Your task to perform on an android device: turn on priority inbox in the gmail app Image 0: 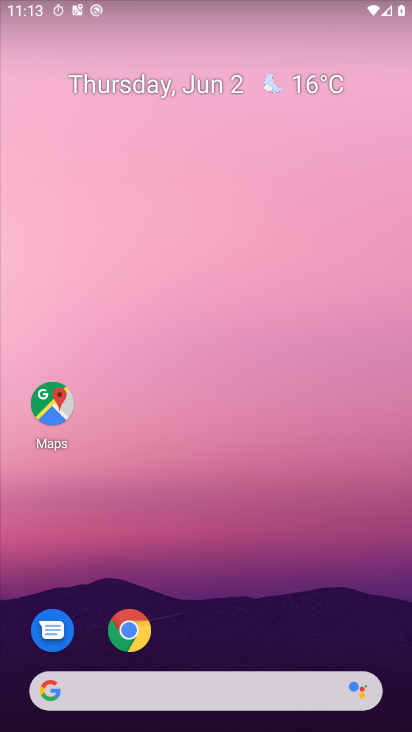
Step 0: drag from (209, 646) to (307, 131)
Your task to perform on an android device: turn on priority inbox in the gmail app Image 1: 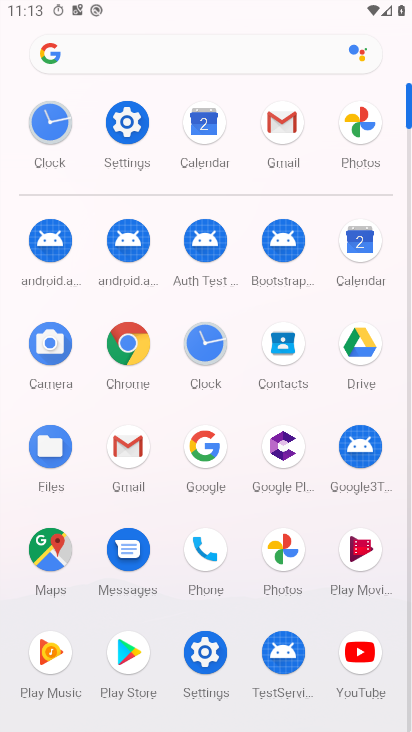
Step 1: click (132, 458)
Your task to perform on an android device: turn on priority inbox in the gmail app Image 2: 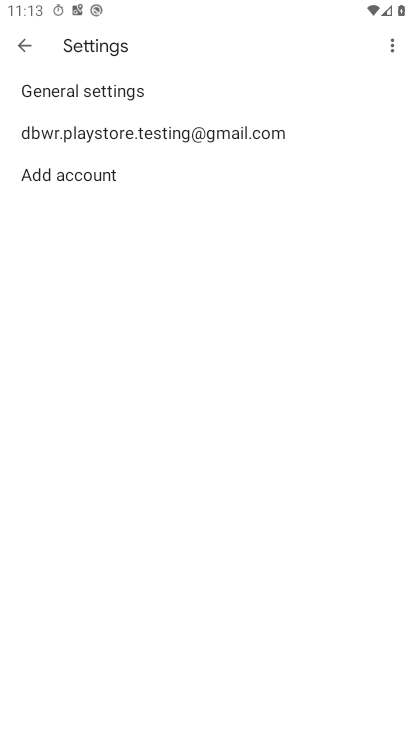
Step 2: click (49, 132)
Your task to perform on an android device: turn on priority inbox in the gmail app Image 3: 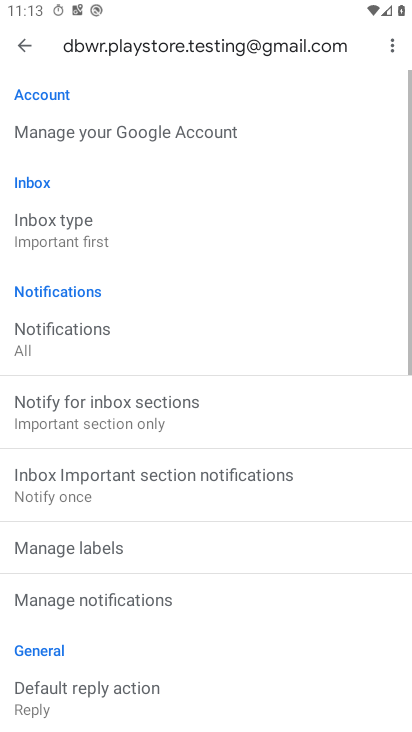
Step 3: click (89, 246)
Your task to perform on an android device: turn on priority inbox in the gmail app Image 4: 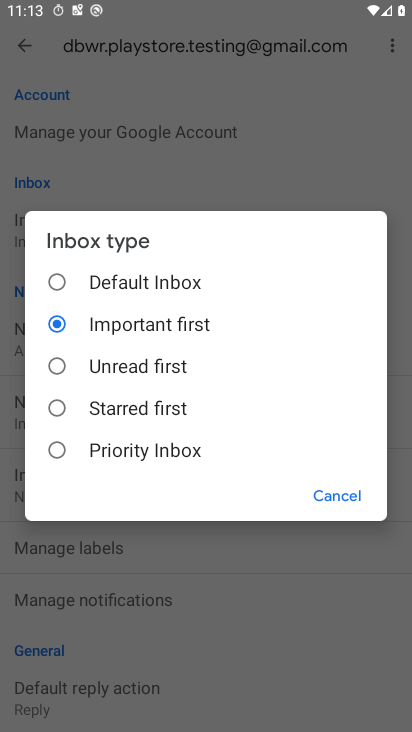
Step 4: click (148, 451)
Your task to perform on an android device: turn on priority inbox in the gmail app Image 5: 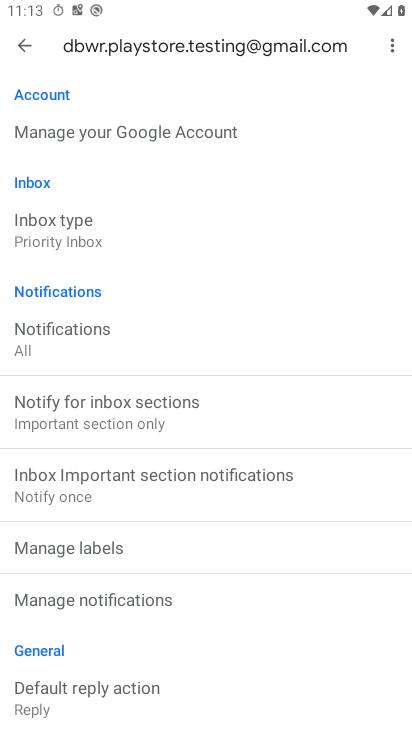
Step 5: task complete